Your task to perform on an android device: set an alarm Image 0: 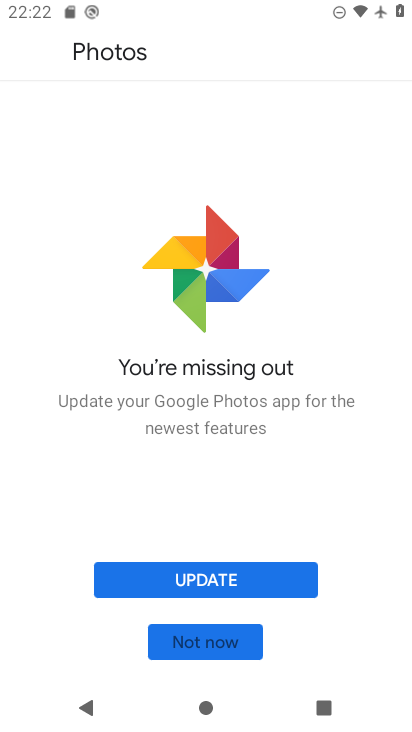
Step 0: press home button
Your task to perform on an android device: set an alarm Image 1: 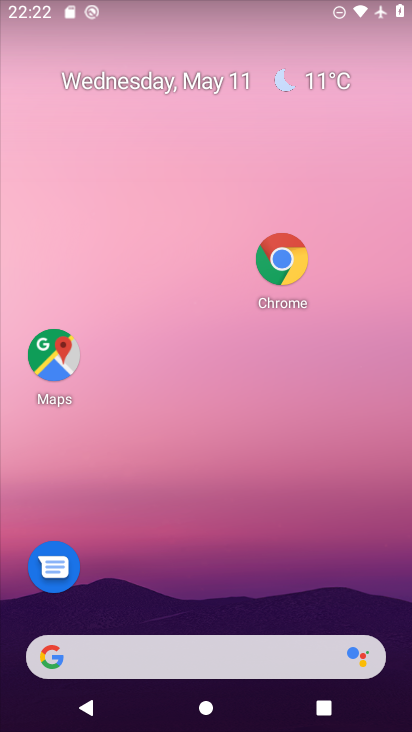
Step 1: drag from (189, 658) to (282, 74)
Your task to perform on an android device: set an alarm Image 2: 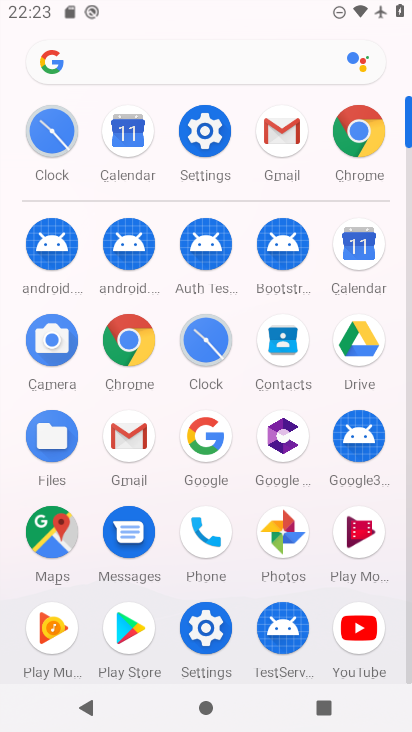
Step 2: click (198, 349)
Your task to perform on an android device: set an alarm Image 3: 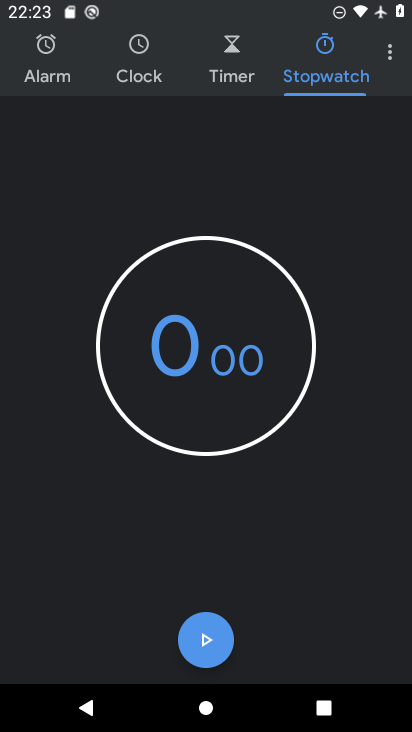
Step 3: click (47, 79)
Your task to perform on an android device: set an alarm Image 4: 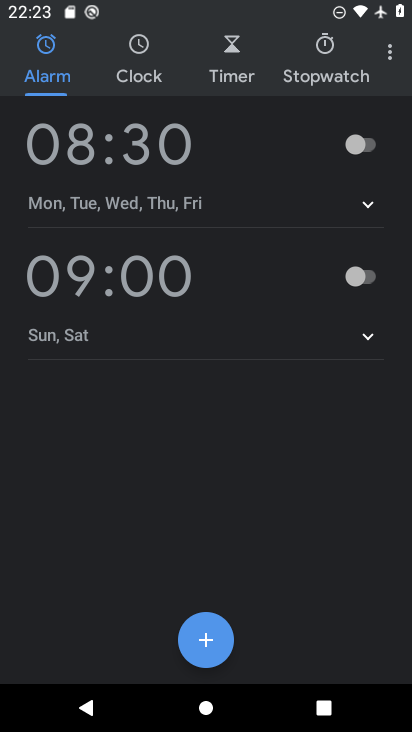
Step 4: click (118, 192)
Your task to perform on an android device: set an alarm Image 5: 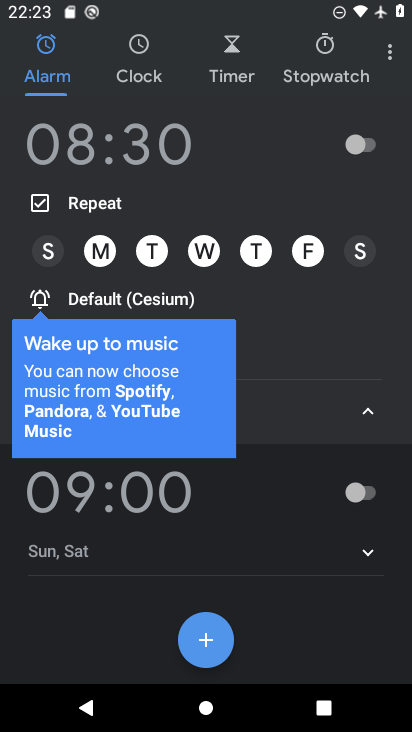
Step 5: click (148, 148)
Your task to perform on an android device: set an alarm Image 6: 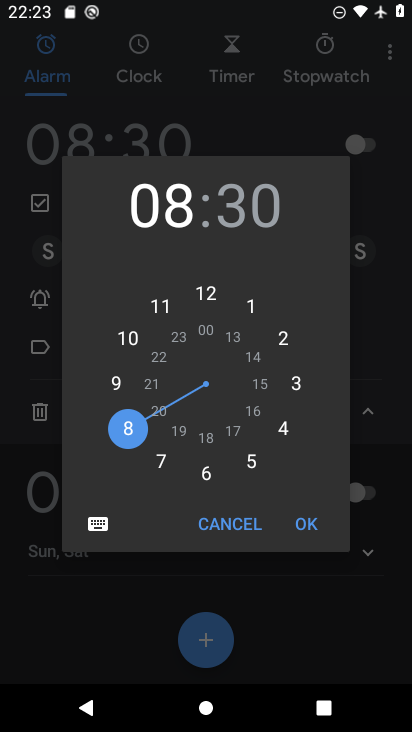
Step 6: click (128, 340)
Your task to perform on an android device: set an alarm Image 7: 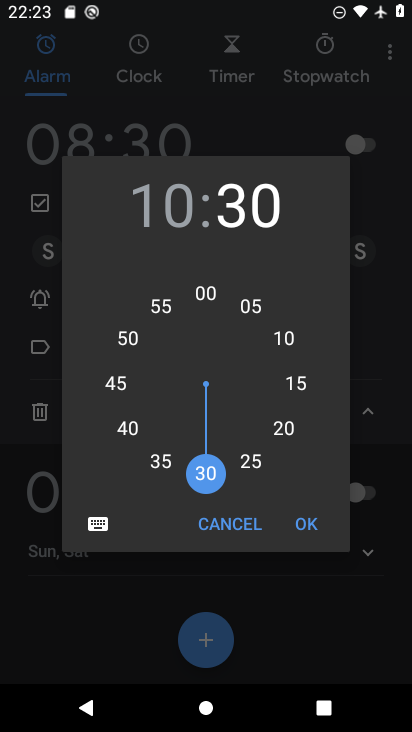
Step 7: click (301, 524)
Your task to perform on an android device: set an alarm Image 8: 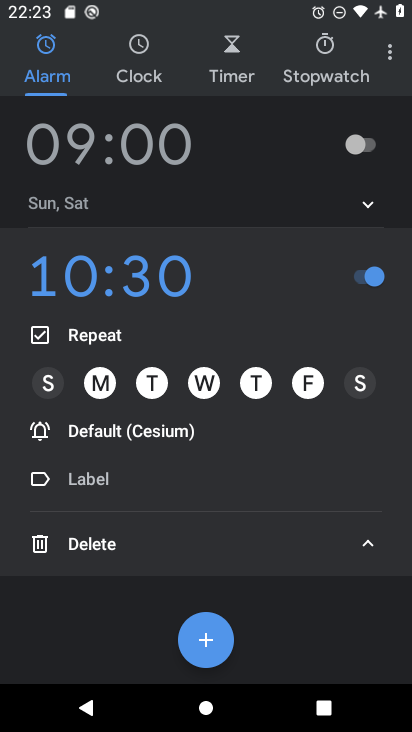
Step 8: task complete